Your task to perform on an android device: Open accessibility settings Image 0: 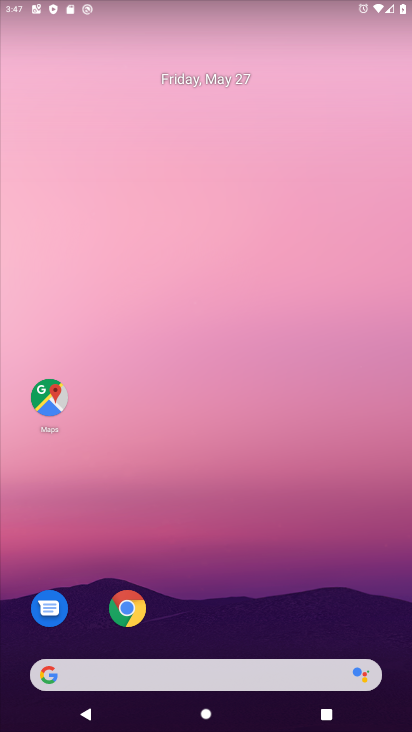
Step 0: drag from (213, 659) to (233, 139)
Your task to perform on an android device: Open accessibility settings Image 1: 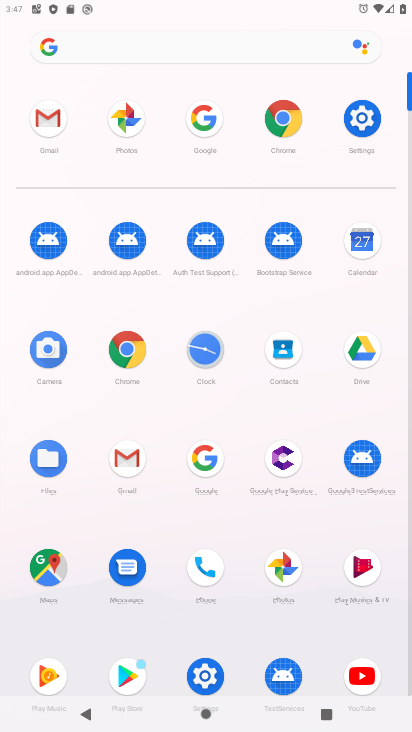
Step 1: click (357, 120)
Your task to perform on an android device: Open accessibility settings Image 2: 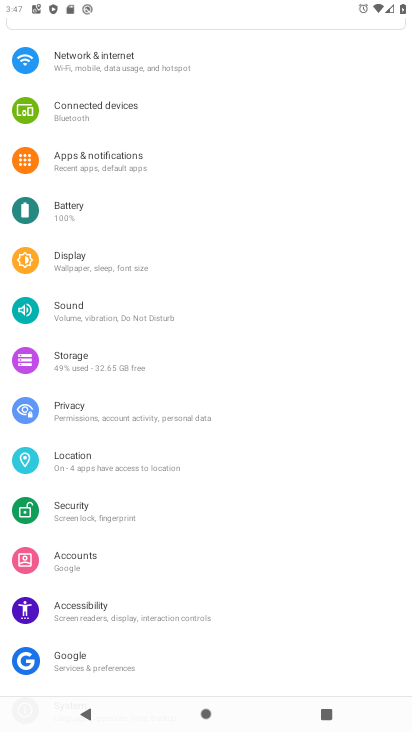
Step 2: click (78, 614)
Your task to perform on an android device: Open accessibility settings Image 3: 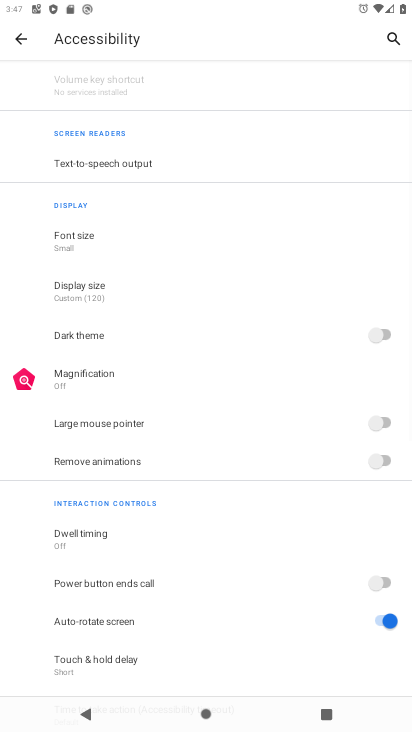
Step 3: task complete